Your task to perform on an android device: toggle sleep mode Image 0: 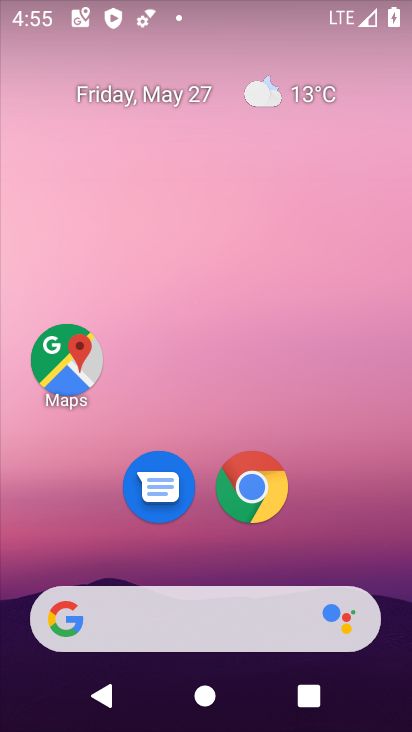
Step 0: drag from (322, 529) to (322, 72)
Your task to perform on an android device: toggle sleep mode Image 1: 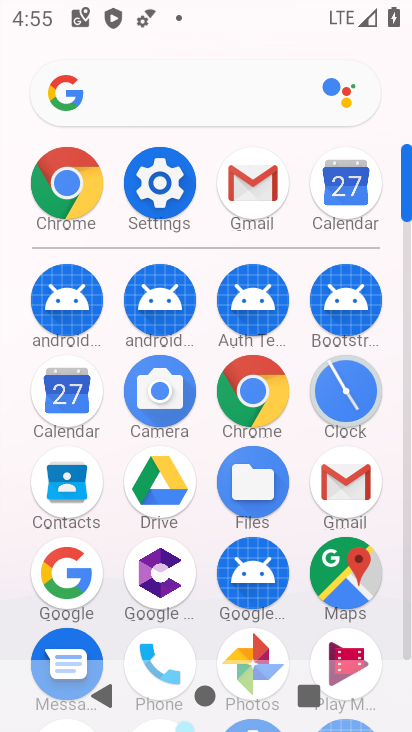
Step 1: click (180, 176)
Your task to perform on an android device: toggle sleep mode Image 2: 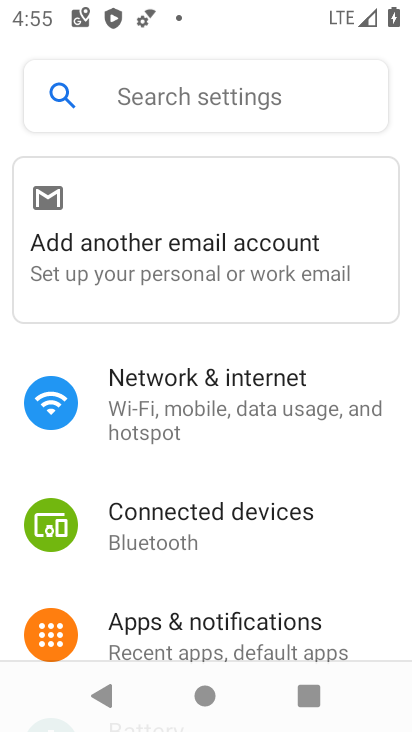
Step 2: drag from (266, 498) to (281, 90)
Your task to perform on an android device: toggle sleep mode Image 3: 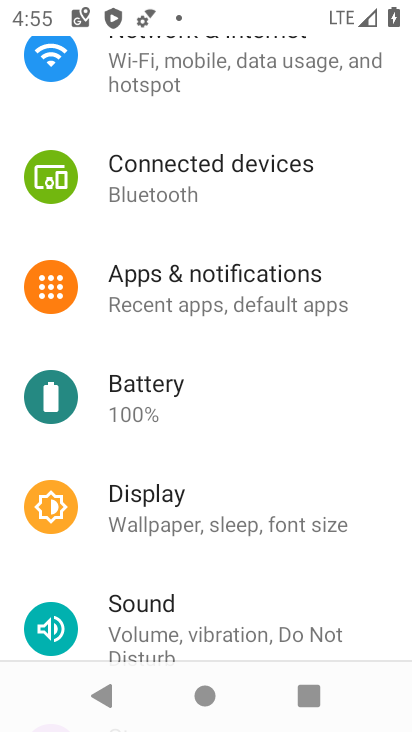
Step 3: drag from (245, 499) to (268, 265)
Your task to perform on an android device: toggle sleep mode Image 4: 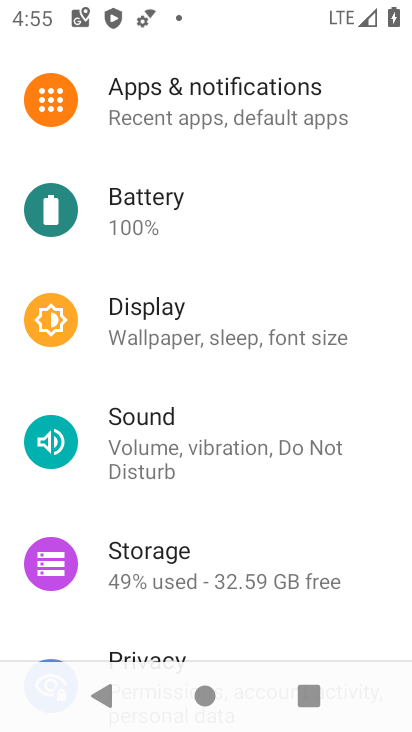
Step 4: click (203, 326)
Your task to perform on an android device: toggle sleep mode Image 5: 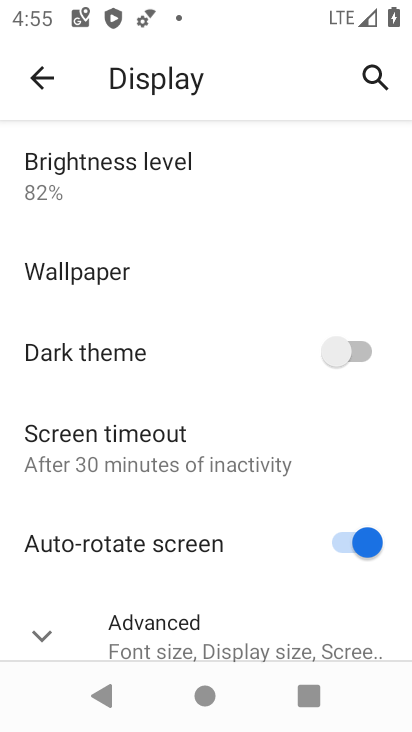
Step 5: click (164, 461)
Your task to perform on an android device: toggle sleep mode Image 6: 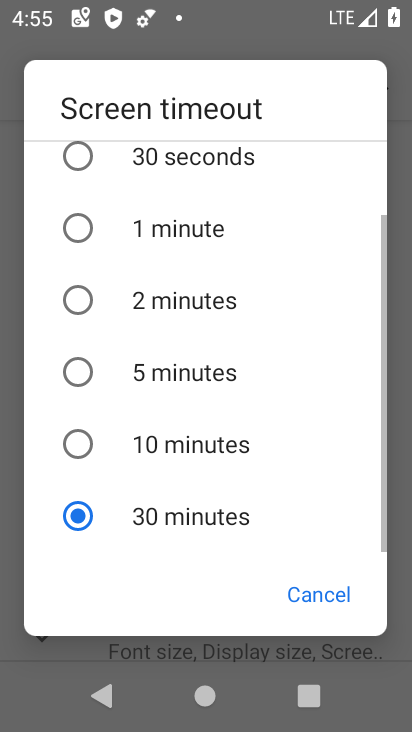
Step 6: click (204, 452)
Your task to perform on an android device: toggle sleep mode Image 7: 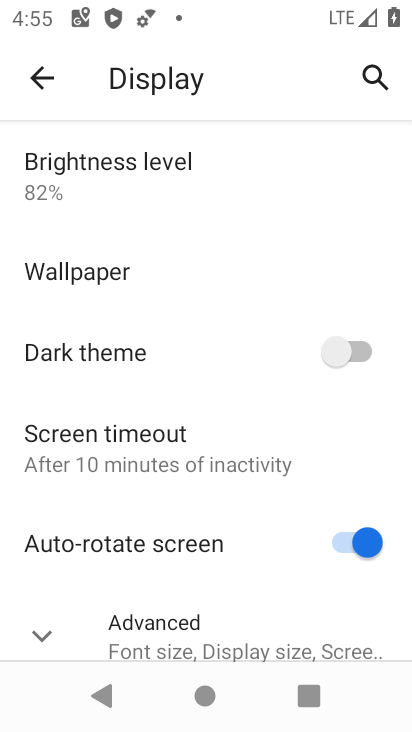
Step 7: task complete